Your task to perform on an android device: Play the last video I watched on Youtube Image 0: 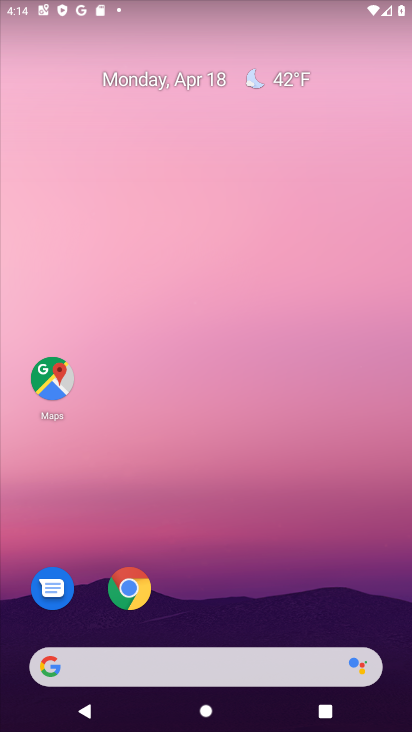
Step 0: drag from (270, 521) to (288, 82)
Your task to perform on an android device: Play the last video I watched on Youtube Image 1: 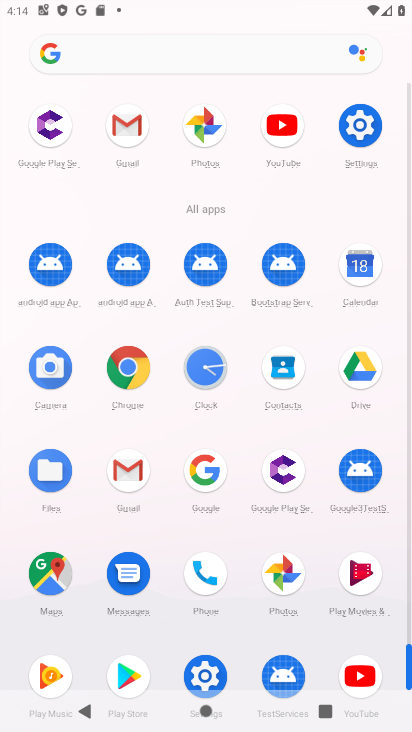
Step 1: click (286, 127)
Your task to perform on an android device: Play the last video I watched on Youtube Image 2: 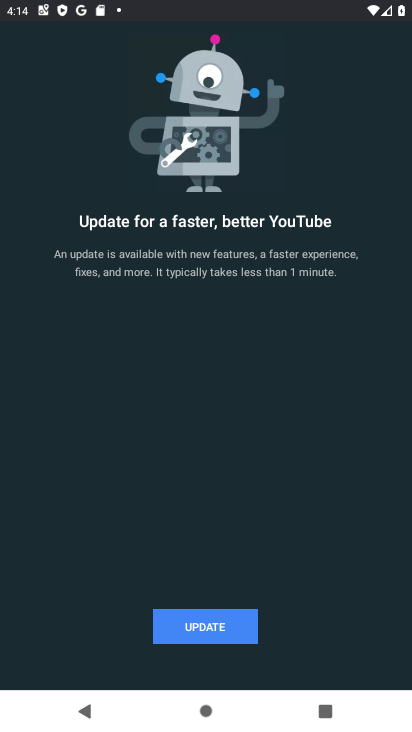
Step 2: click (192, 628)
Your task to perform on an android device: Play the last video I watched on Youtube Image 3: 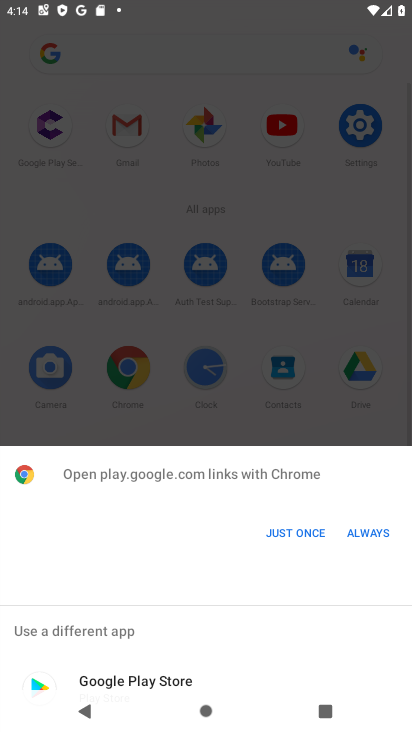
Step 3: click (113, 677)
Your task to perform on an android device: Play the last video I watched on Youtube Image 4: 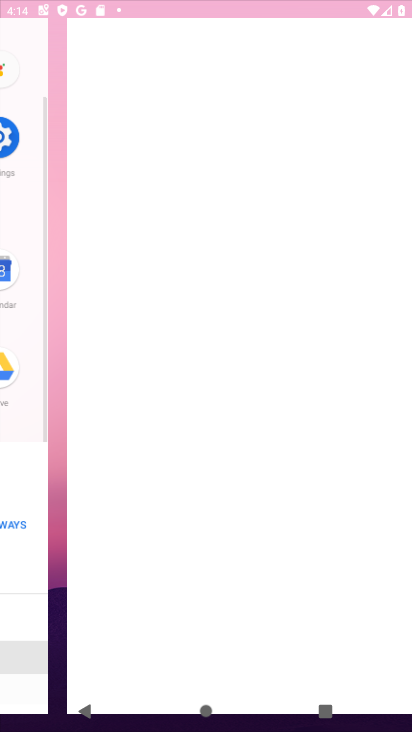
Step 4: click (288, 533)
Your task to perform on an android device: Play the last video I watched on Youtube Image 5: 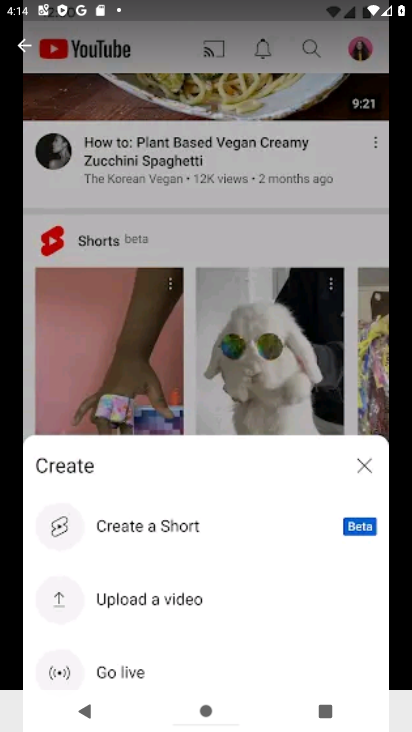
Step 5: drag from (210, 336) to (188, 680)
Your task to perform on an android device: Play the last video I watched on Youtube Image 6: 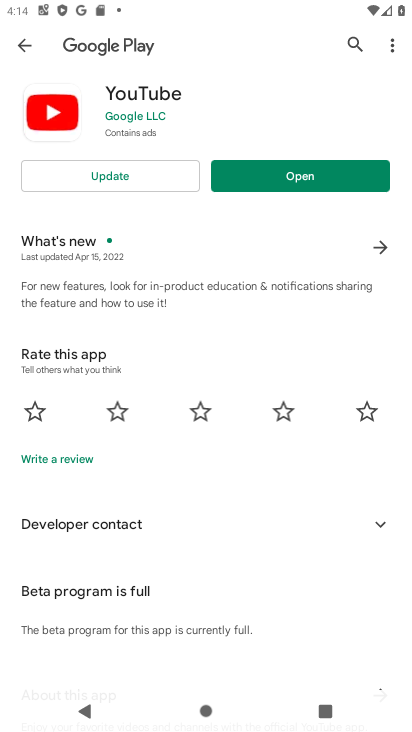
Step 6: click (334, 172)
Your task to perform on an android device: Play the last video I watched on Youtube Image 7: 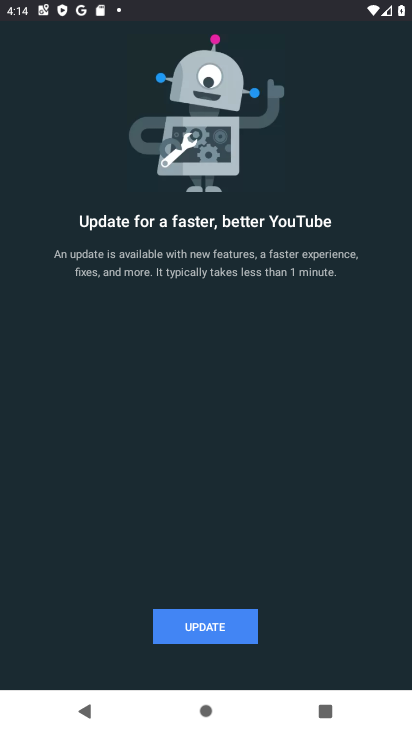
Step 7: click (198, 632)
Your task to perform on an android device: Play the last video I watched on Youtube Image 8: 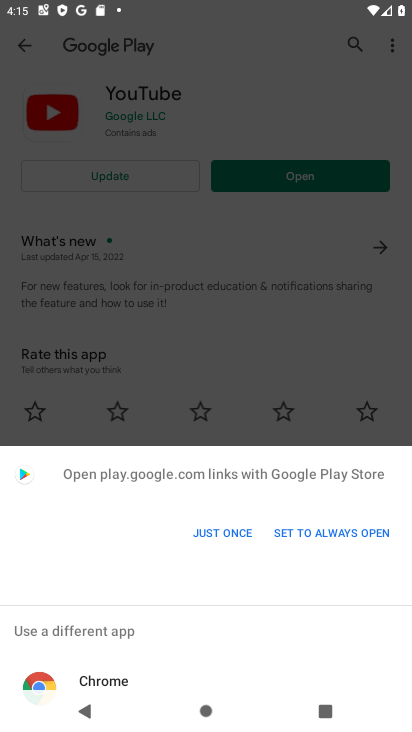
Step 8: click (144, 672)
Your task to perform on an android device: Play the last video I watched on Youtube Image 9: 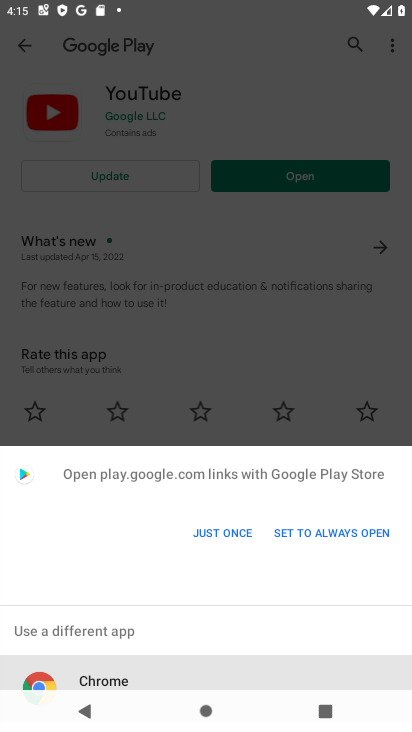
Step 9: drag from (145, 579) to (148, 481)
Your task to perform on an android device: Play the last video I watched on Youtube Image 10: 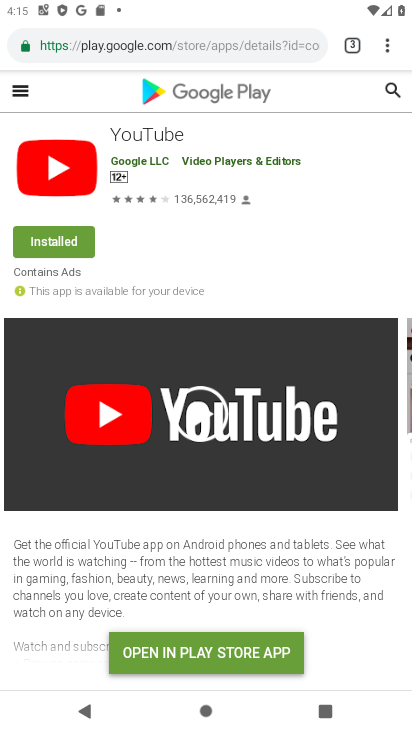
Step 10: click (42, 172)
Your task to perform on an android device: Play the last video I watched on Youtube Image 11: 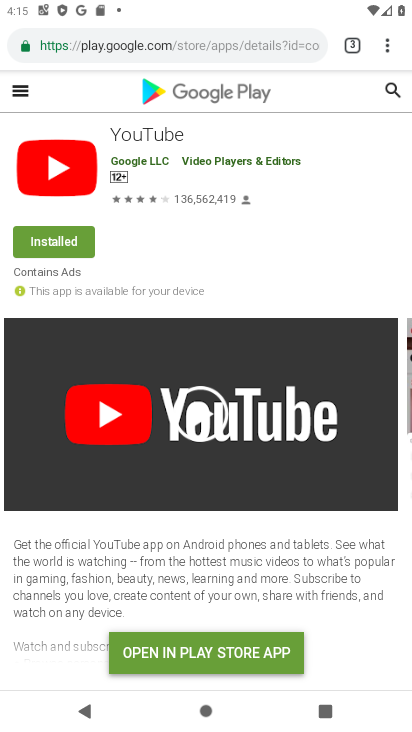
Step 11: task complete